Your task to perform on an android device: turn off notifications in google photos Image 0: 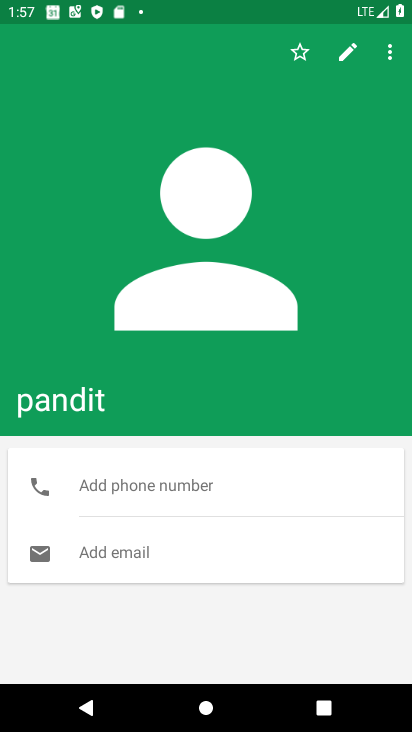
Step 0: press home button
Your task to perform on an android device: turn off notifications in google photos Image 1: 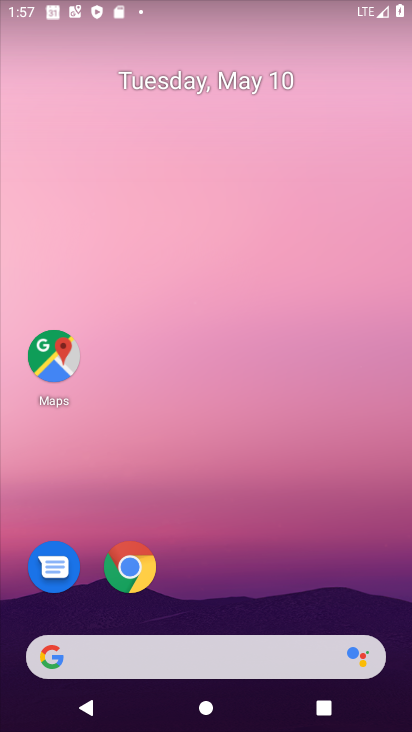
Step 1: drag from (397, 601) to (317, 74)
Your task to perform on an android device: turn off notifications in google photos Image 2: 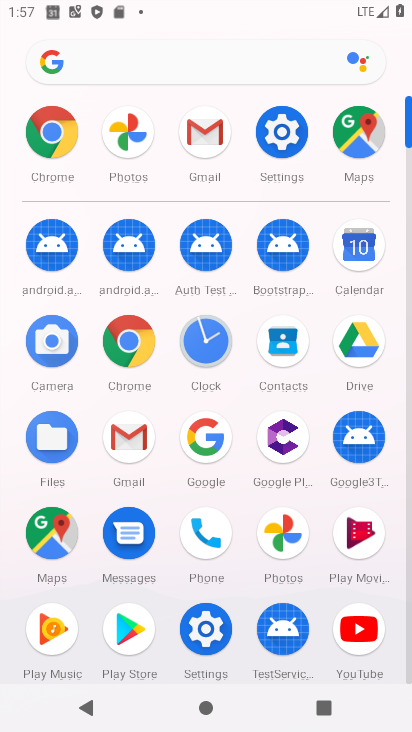
Step 2: click (281, 538)
Your task to perform on an android device: turn off notifications in google photos Image 3: 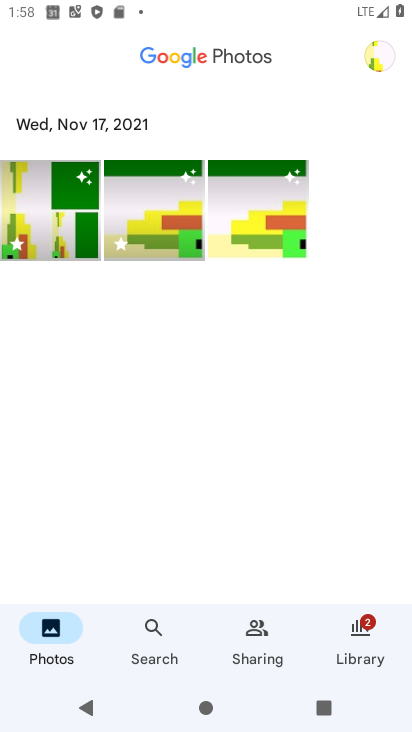
Step 3: click (382, 55)
Your task to perform on an android device: turn off notifications in google photos Image 4: 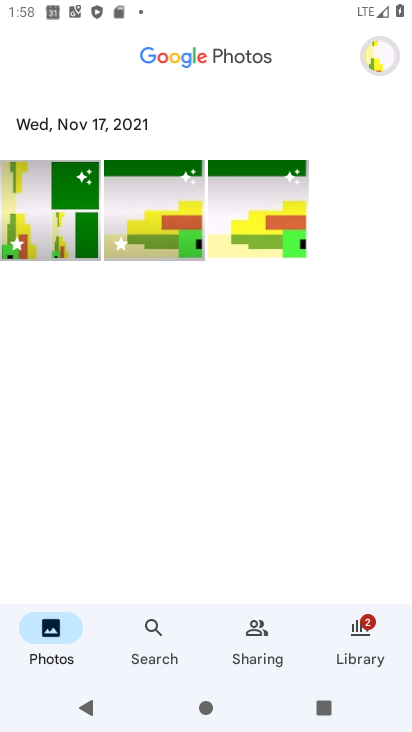
Step 4: click (376, 59)
Your task to perform on an android device: turn off notifications in google photos Image 5: 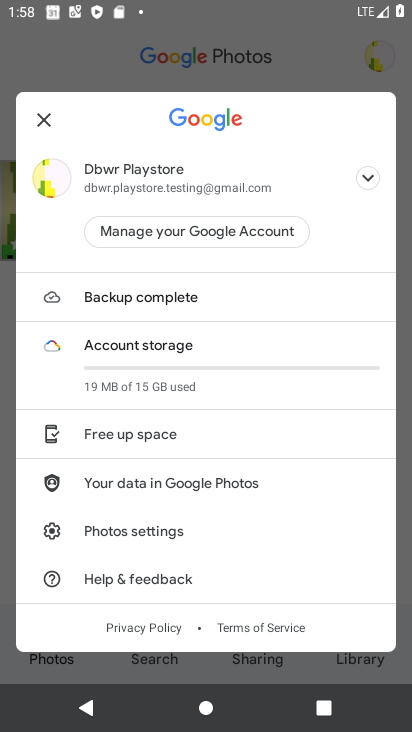
Step 5: click (157, 526)
Your task to perform on an android device: turn off notifications in google photos Image 6: 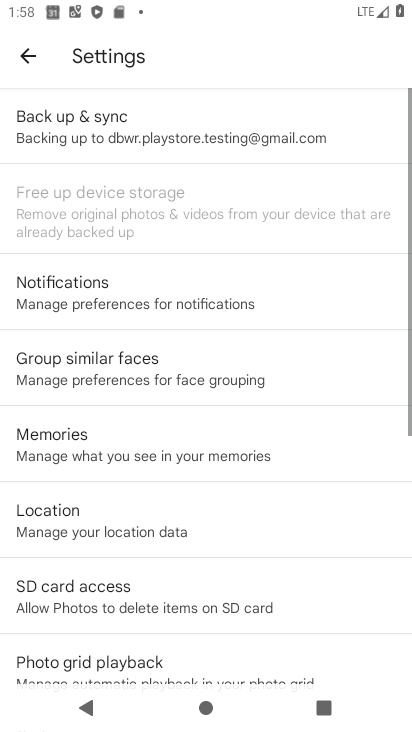
Step 6: click (112, 305)
Your task to perform on an android device: turn off notifications in google photos Image 7: 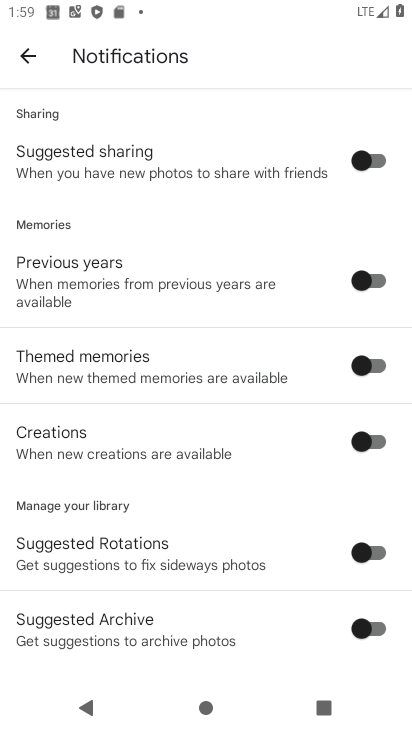
Step 7: task complete